Your task to perform on an android device: turn on the 24-hour format for clock Image 0: 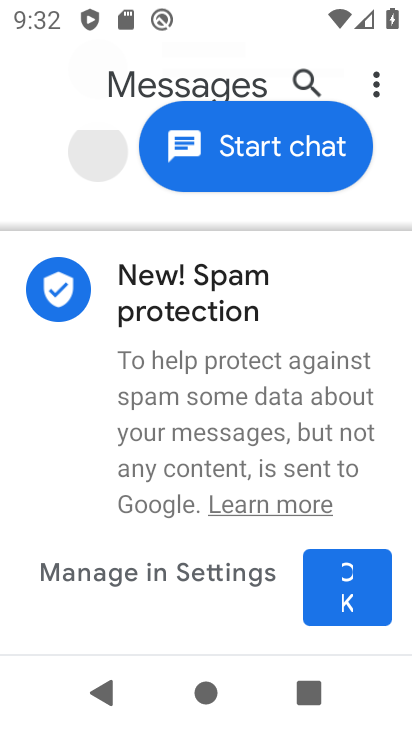
Step 0: press home button
Your task to perform on an android device: turn on the 24-hour format for clock Image 1: 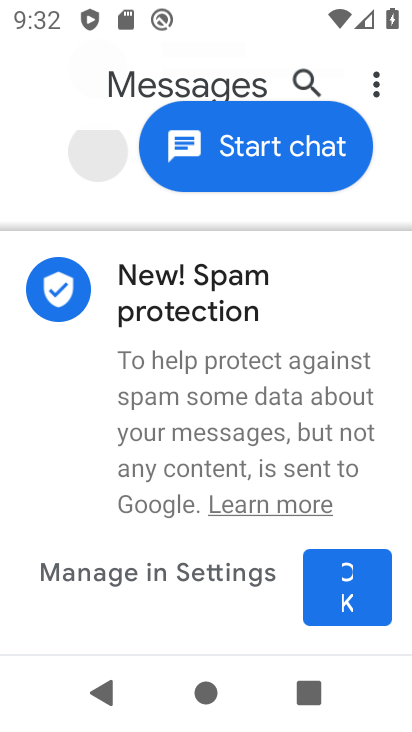
Step 1: press home button
Your task to perform on an android device: turn on the 24-hour format for clock Image 2: 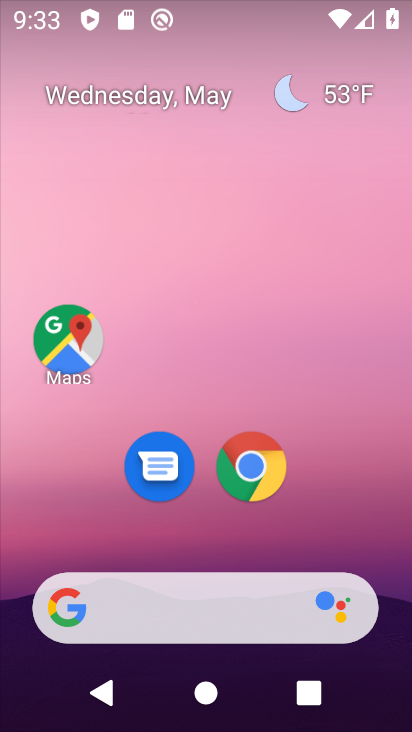
Step 2: drag from (202, 559) to (217, 102)
Your task to perform on an android device: turn on the 24-hour format for clock Image 3: 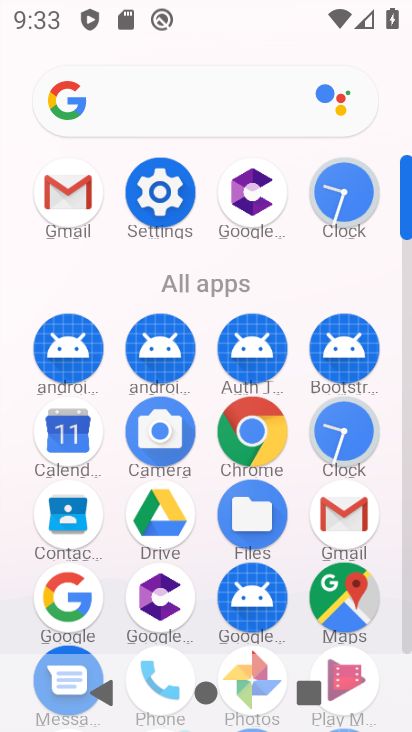
Step 3: click (359, 449)
Your task to perform on an android device: turn on the 24-hour format for clock Image 4: 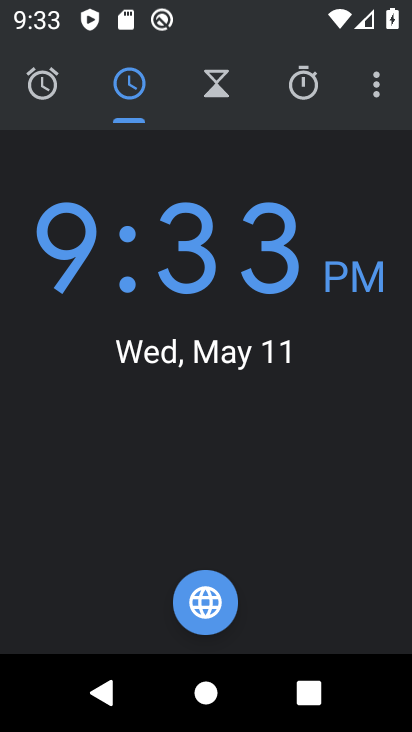
Step 4: click (387, 73)
Your task to perform on an android device: turn on the 24-hour format for clock Image 5: 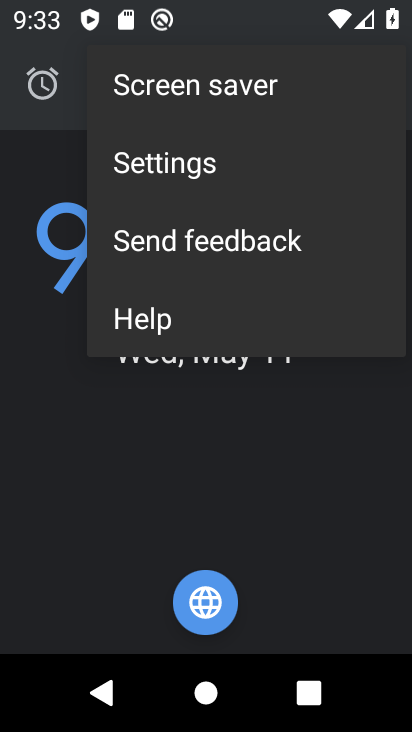
Step 5: click (260, 152)
Your task to perform on an android device: turn on the 24-hour format for clock Image 6: 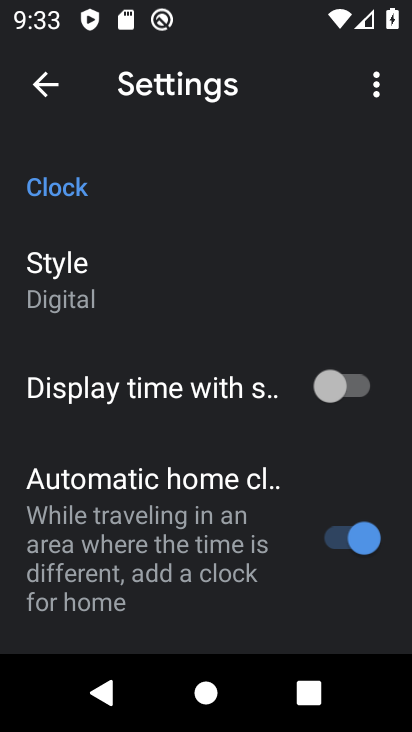
Step 6: drag from (219, 586) to (306, 209)
Your task to perform on an android device: turn on the 24-hour format for clock Image 7: 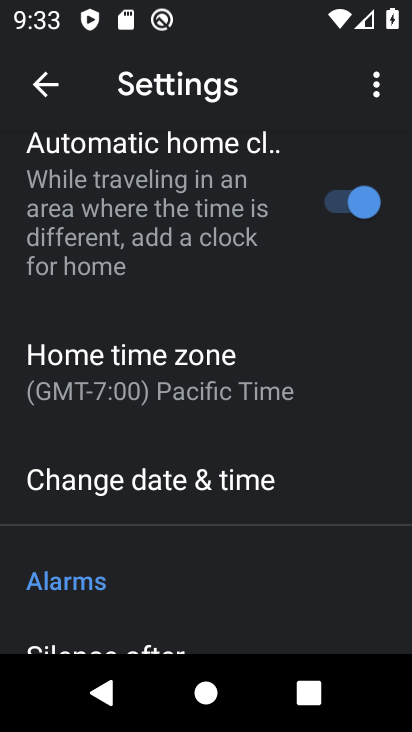
Step 7: click (159, 465)
Your task to perform on an android device: turn on the 24-hour format for clock Image 8: 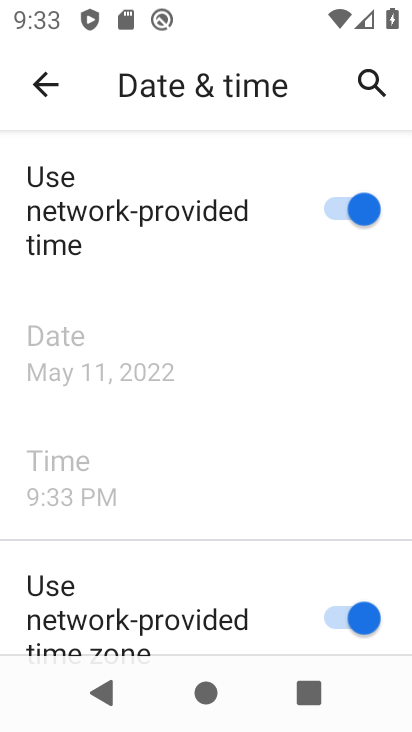
Step 8: drag from (167, 553) to (345, 107)
Your task to perform on an android device: turn on the 24-hour format for clock Image 9: 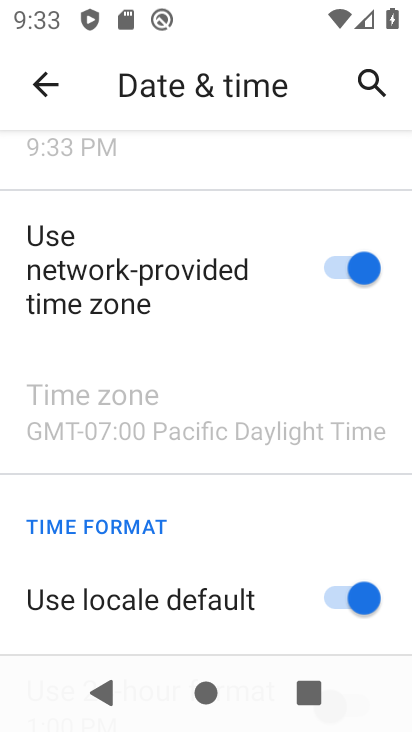
Step 9: drag from (215, 546) to (325, 112)
Your task to perform on an android device: turn on the 24-hour format for clock Image 10: 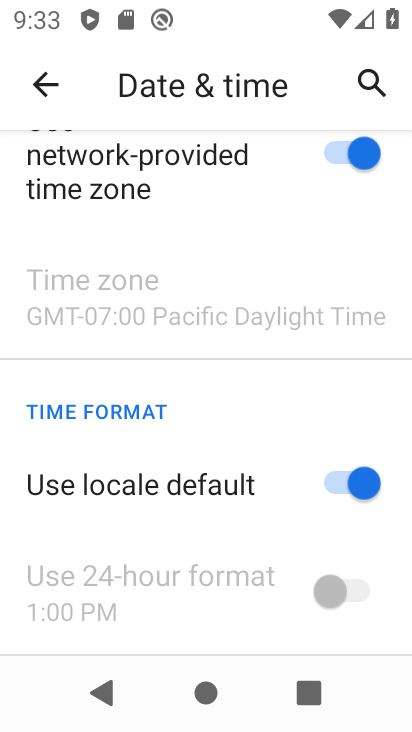
Step 10: click (338, 501)
Your task to perform on an android device: turn on the 24-hour format for clock Image 11: 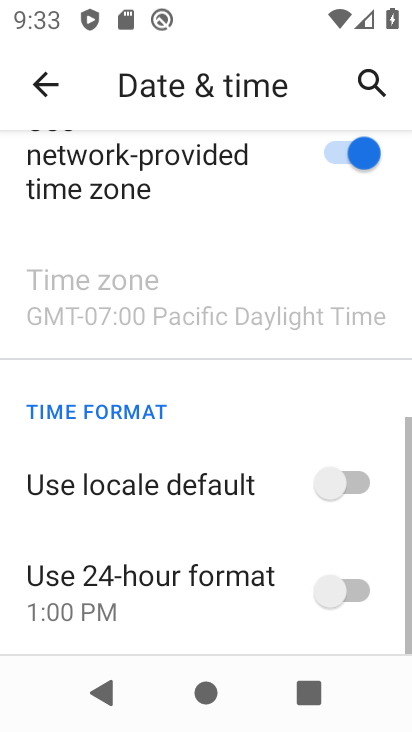
Step 11: click (351, 600)
Your task to perform on an android device: turn on the 24-hour format for clock Image 12: 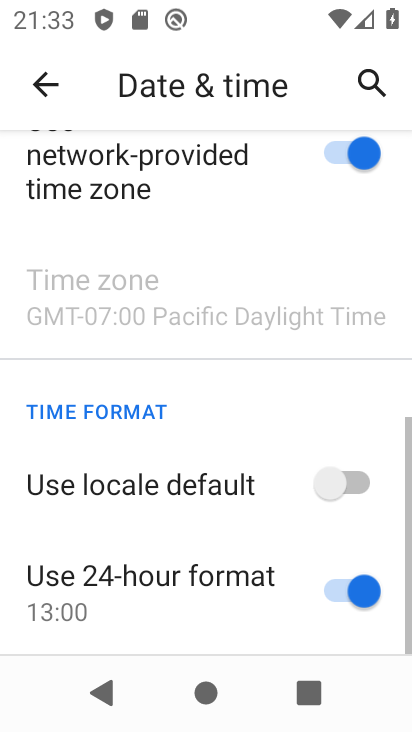
Step 12: task complete